Your task to perform on an android device: add a label to a message in the gmail app Image 0: 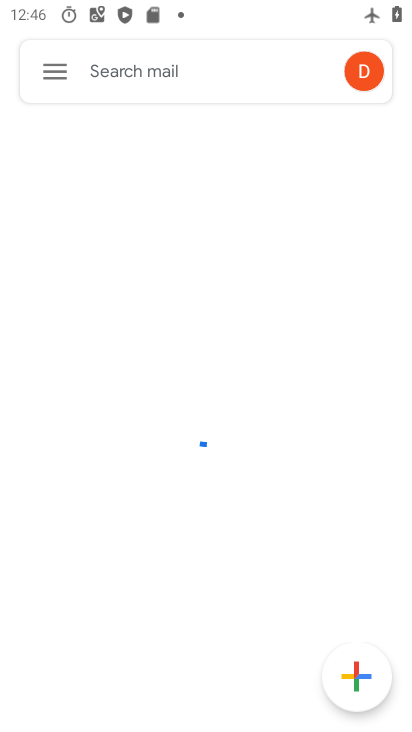
Step 0: press home button
Your task to perform on an android device: add a label to a message in the gmail app Image 1: 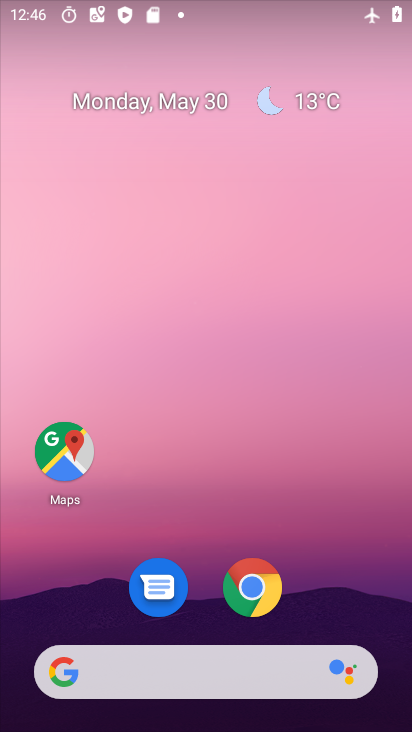
Step 1: drag from (334, 511) to (253, 88)
Your task to perform on an android device: add a label to a message in the gmail app Image 2: 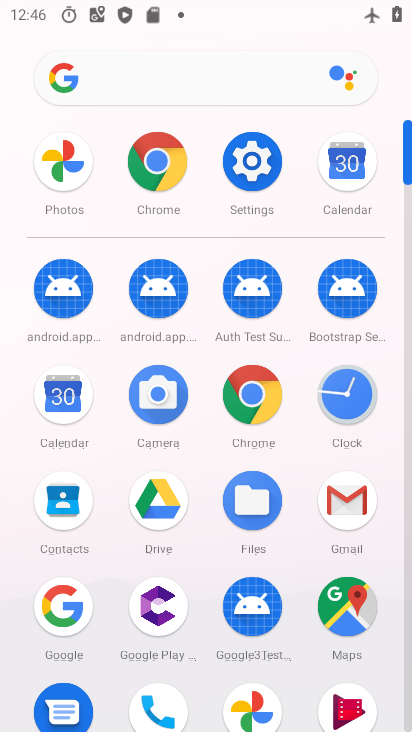
Step 2: click (364, 519)
Your task to perform on an android device: add a label to a message in the gmail app Image 3: 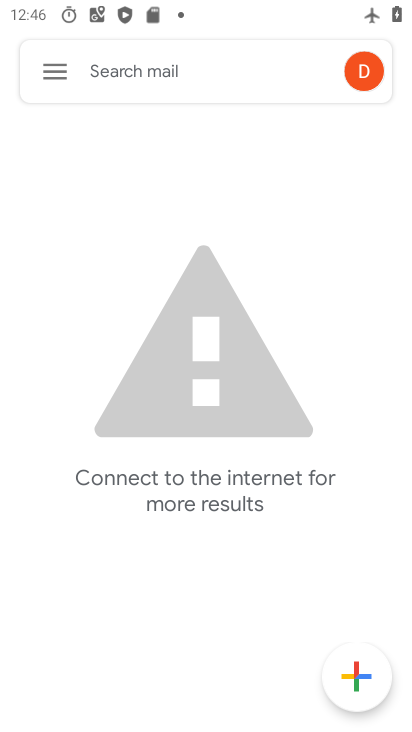
Step 3: task complete